Your task to perform on an android device: open a bookmark in the chrome app Image 0: 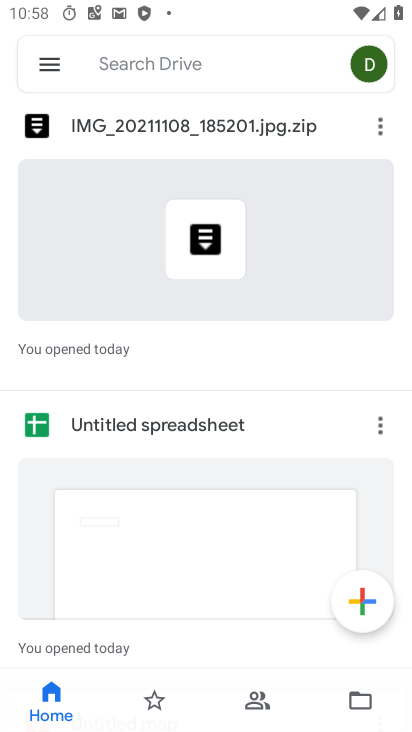
Step 0: press back button
Your task to perform on an android device: open a bookmark in the chrome app Image 1: 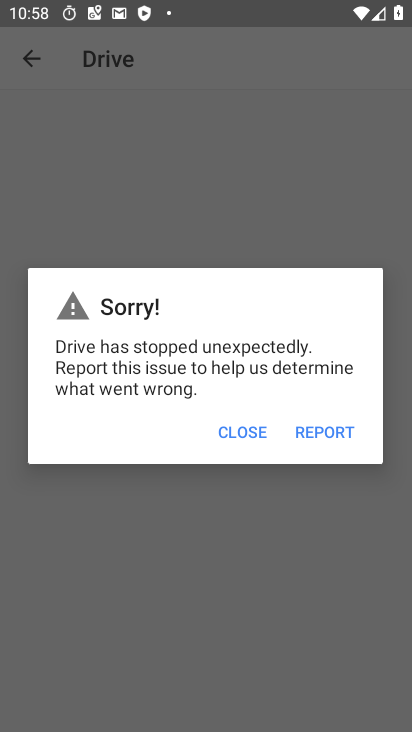
Step 1: press back button
Your task to perform on an android device: open a bookmark in the chrome app Image 2: 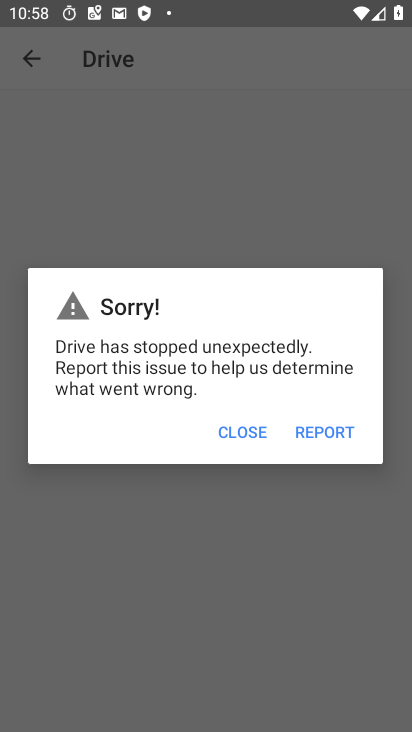
Step 2: press home button
Your task to perform on an android device: open a bookmark in the chrome app Image 3: 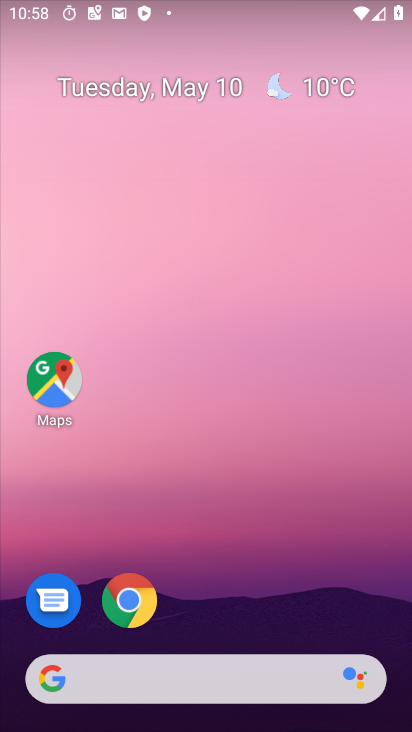
Step 3: click (128, 598)
Your task to perform on an android device: open a bookmark in the chrome app Image 4: 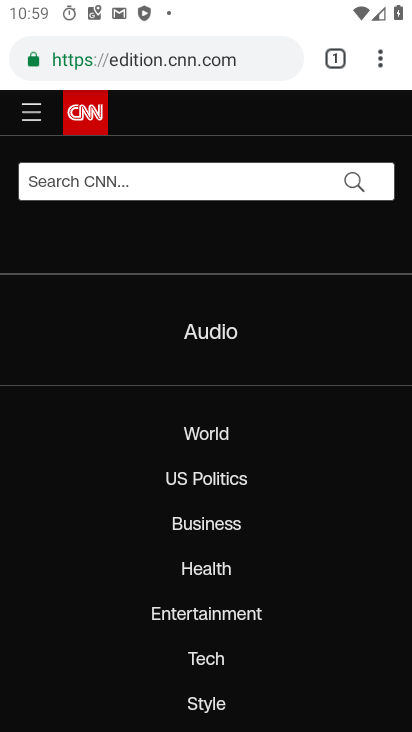
Step 4: drag from (384, 56) to (269, 146)
Your task to perform on an android device: open a bookmark in the chrome app Image 5: 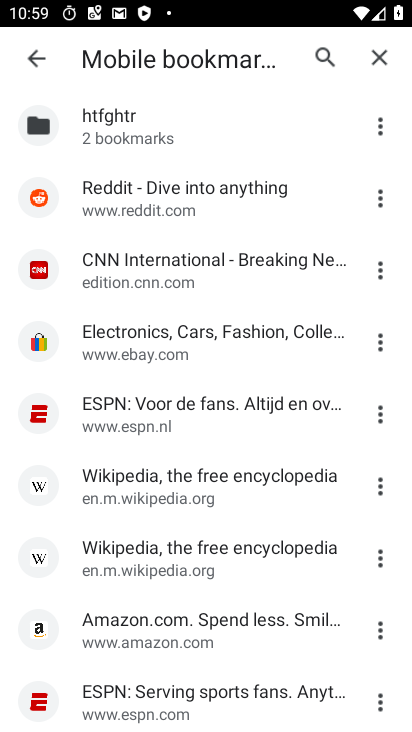
Step 5: click (175, 486)
Your task to perform on an android device: open a bookmark in the chrome app Image 6: 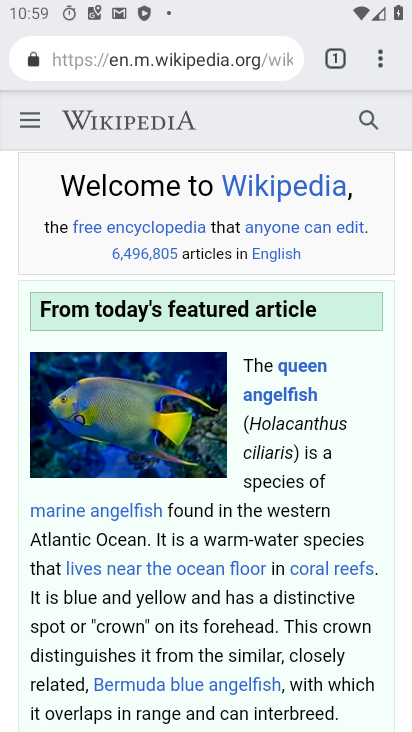
Step 6: task complete